Your task to perform on an android device: Go to Amazon Image 0: 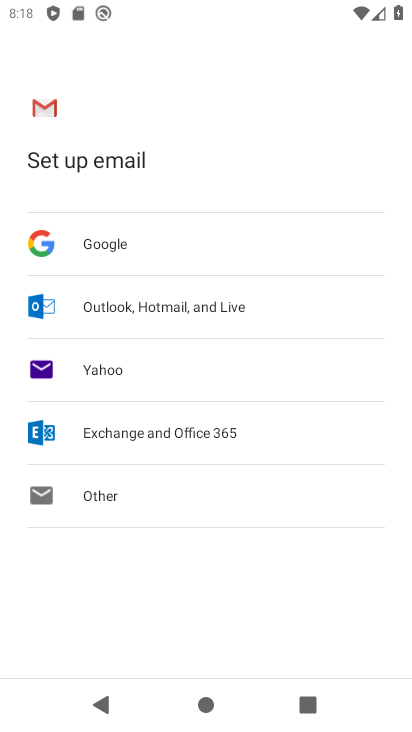
Step 0: press home button
Your task to perform on an android device: Go to Amazon Image 1: 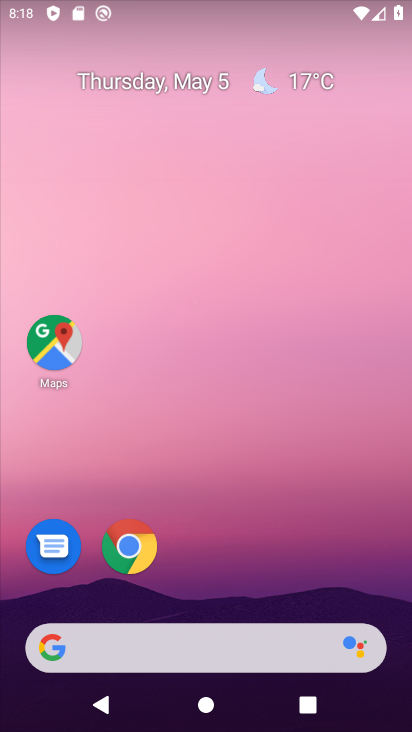
Step 1: drag from (170, 644) to (317, 263)
Your task to perform on an android device: Go to Amazon Image 2: 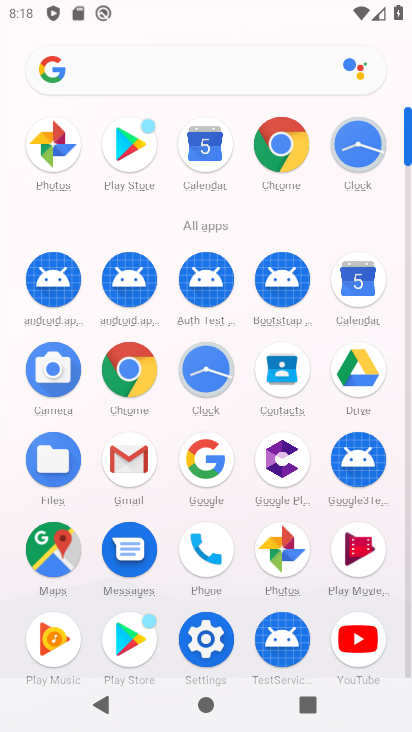
Step 2: click (283, 158)
Your task to perform on an android device: Go to Amazon Image 3: 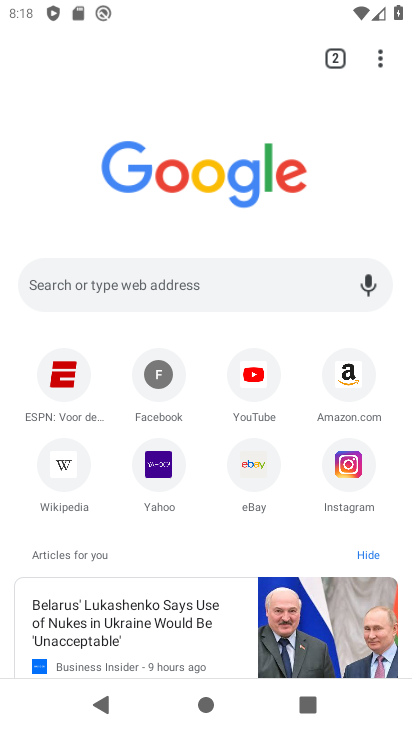
Step 3: click (350, 381)
Your task to perform on an android device: Go to Amazon Image 4: 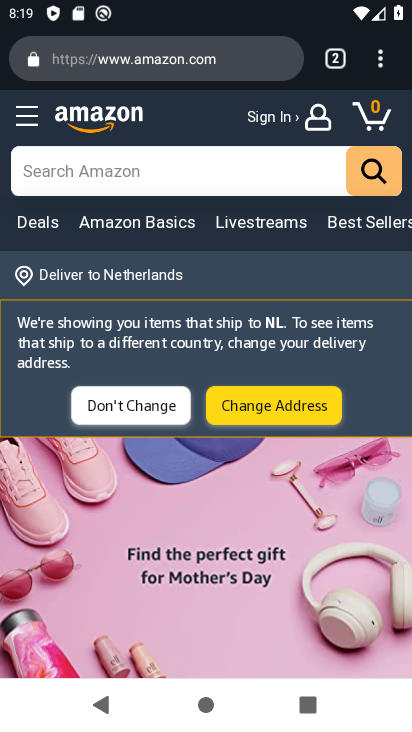
Step 4: task complete